Your task to perform on an android device: What's on my calendar today? Image 0: 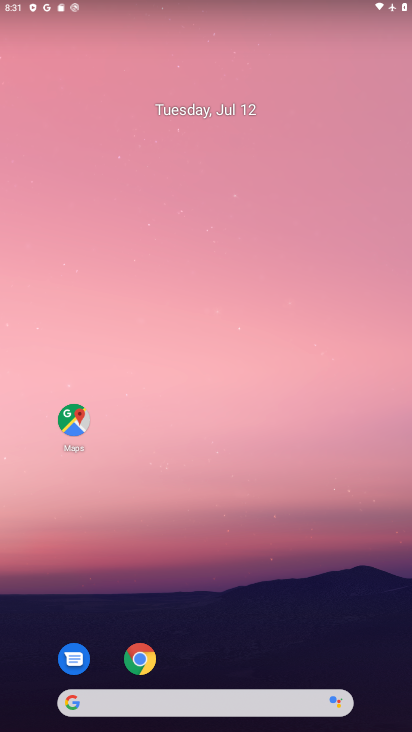
Step 0: drag from (271, 699) to (269, 208)
Your task to perform on an android device: What's on my calendar today? Image 1: 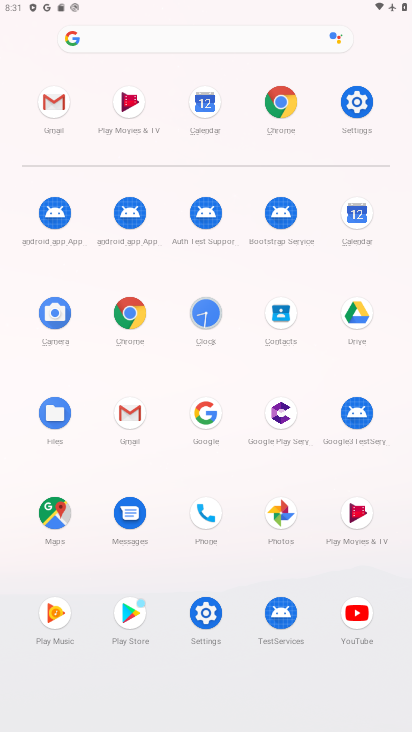
Step 1: click (361, 210)
Your task to perform on an android device: What's on my calendar today? Image 2: 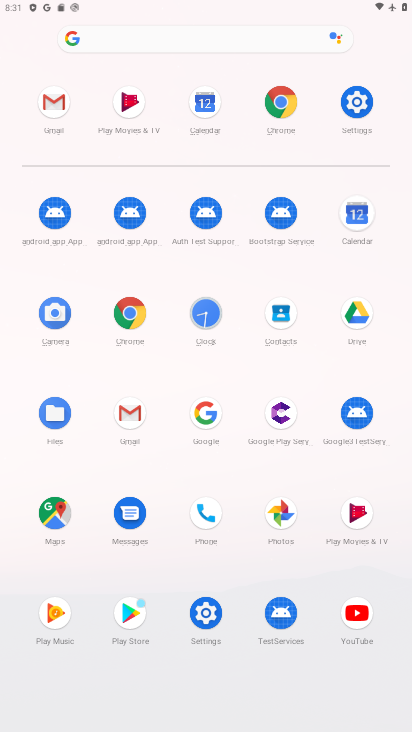
Step 2: click (362, 210)
Your task to perform on an android device: What's on my calendar today? Image 3: 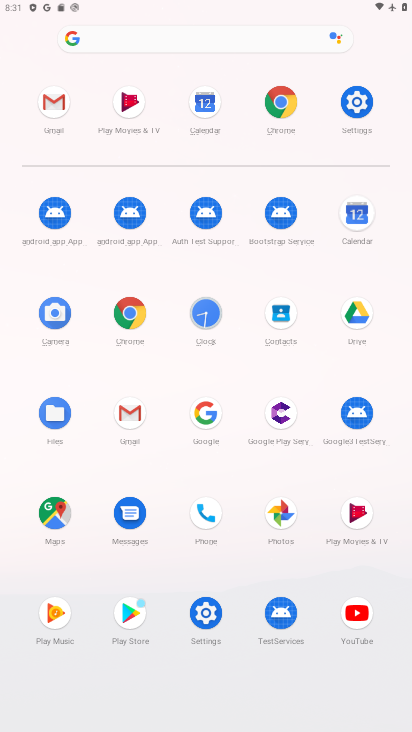
Step 3: click (362, 210)
Your task to perform on an android device: What's on my calendar today? Image 4: 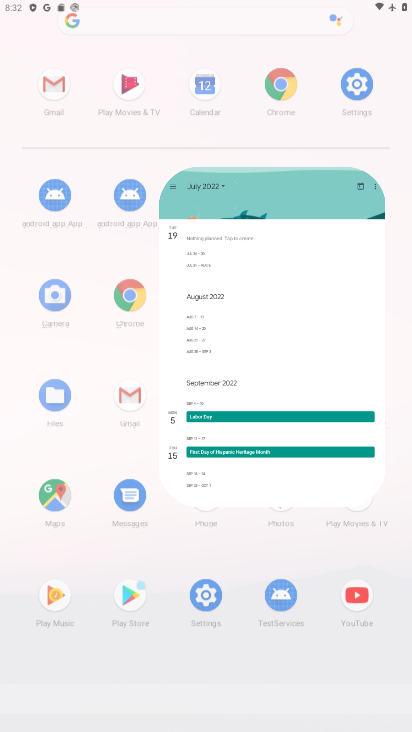
Step 4: click (363, 210)
Your task to perform on an android device: What's on my calendar today? Image 5: 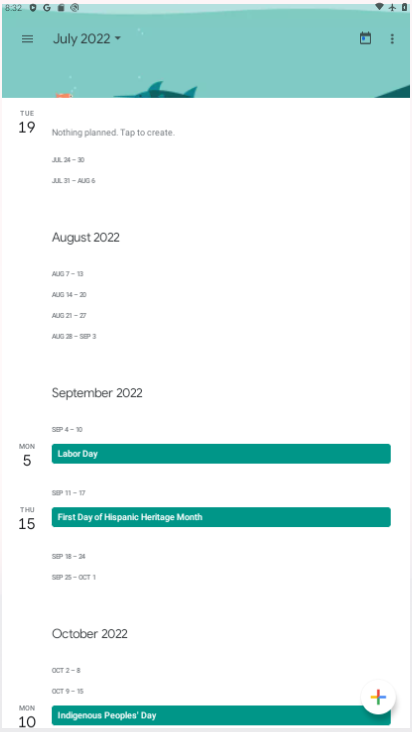
Step 5: click (368, 213)
Your task to perform on an android device: What's on my calendar today? Image 6: 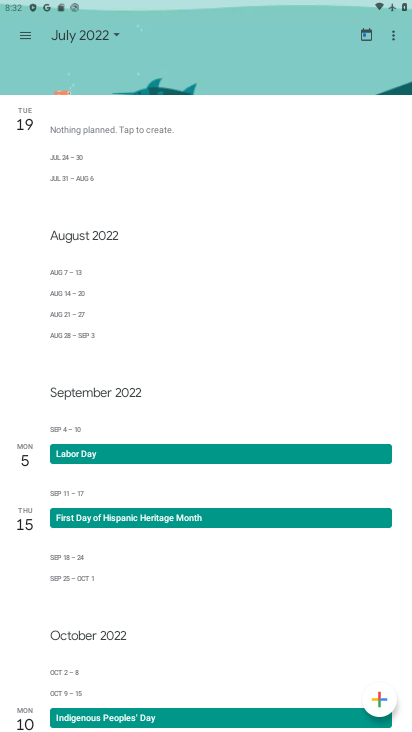
Step 6: click (118, 37)
Your task to perform on an android device: What's on my calendar today? Image 7: 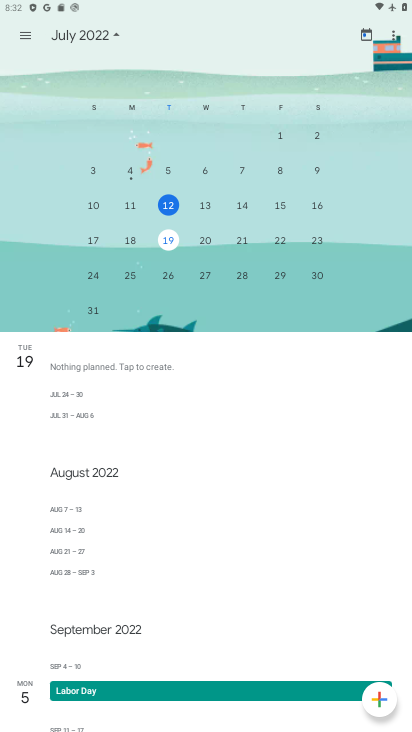
Step 7: click (197, 199)
Your task to perform on an android device: What's on my calendar today? Image 8: 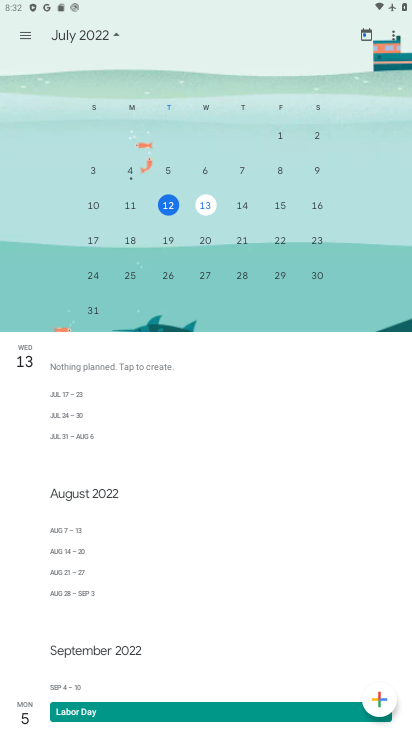
Step 8: click (199, 200)
Your task to perform on an android device: What's on my calendar today? Image 9: 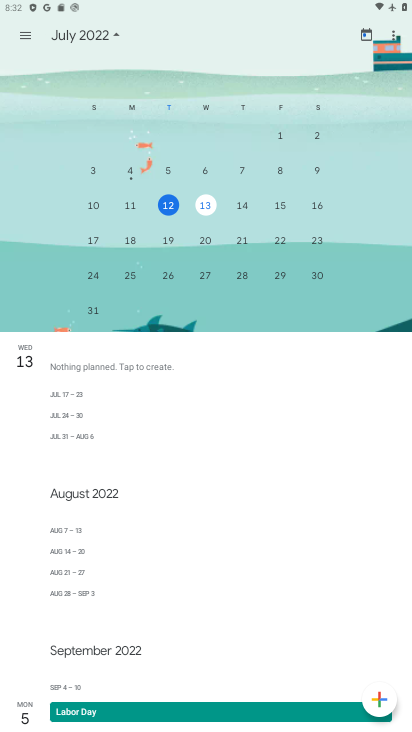
Step 9: click (200, 200)
Your task to perform on an android device: What's on my calendar today? Image 10: 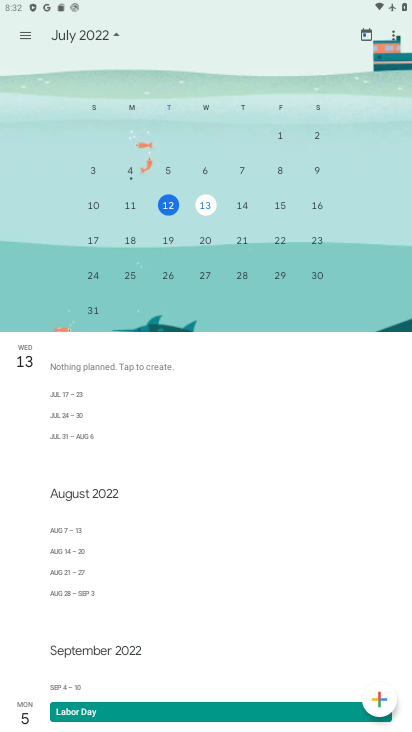
Step 10: click (203, 200)
Your task to perform on an android device: What's on my calendar today? Image 11: 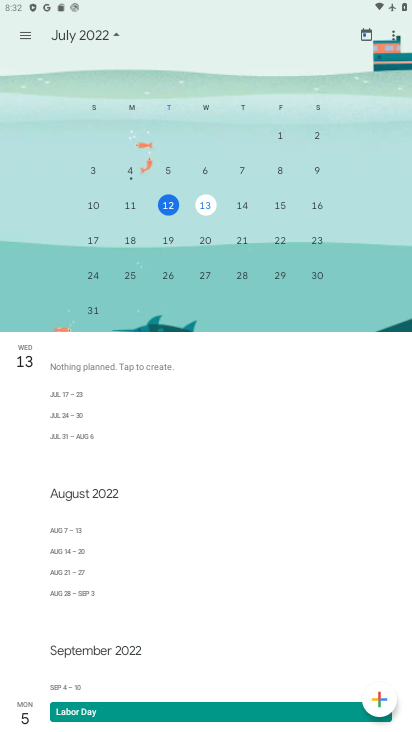
Step 11: click (207, 199)
Your task to perform on an android device: What's on my calendar today? Image 12: 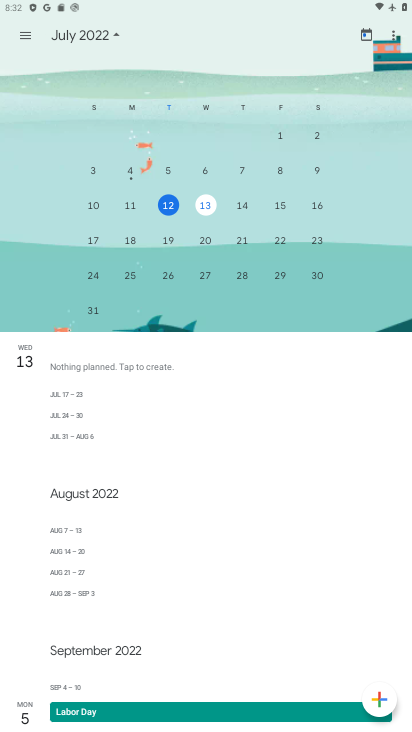
Step 12: task complete